Your task to perform on an android device: turn on javascript in the chrome app Image 0: 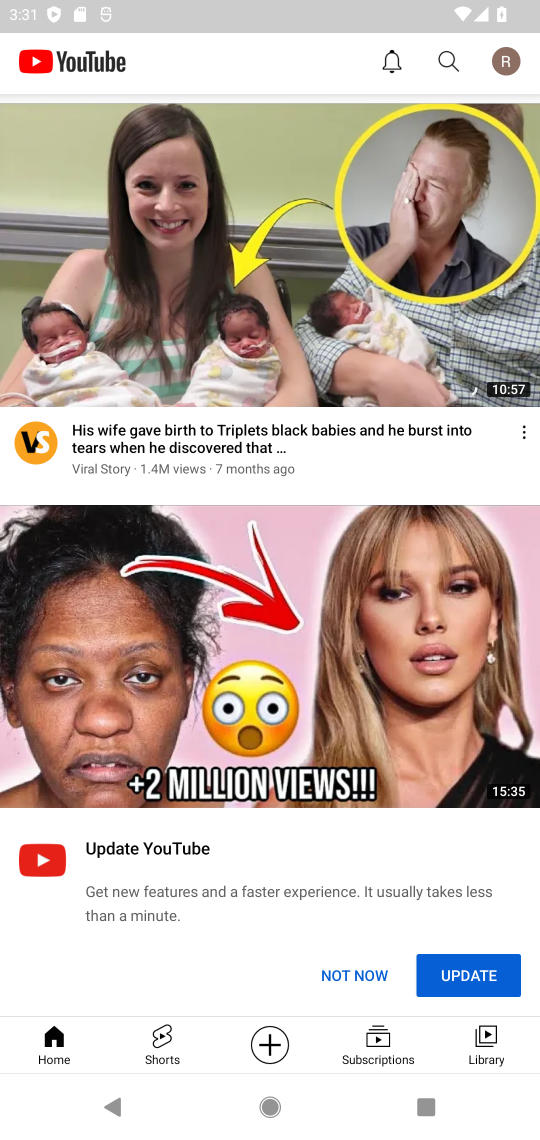
Step 0: press home button
Your task to perform on an android device: turn on javascript in the chrome app Image 1: 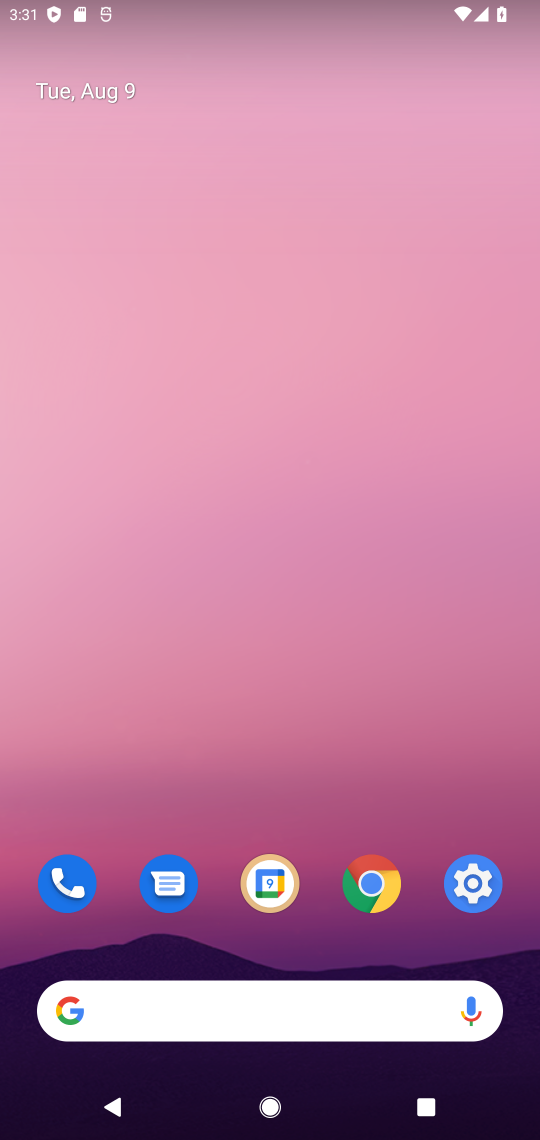
Step 1: drag from (393, 1063) to (401, 404)
Your task to perform on an android device: turn on javascript in the chrome app Image 2: 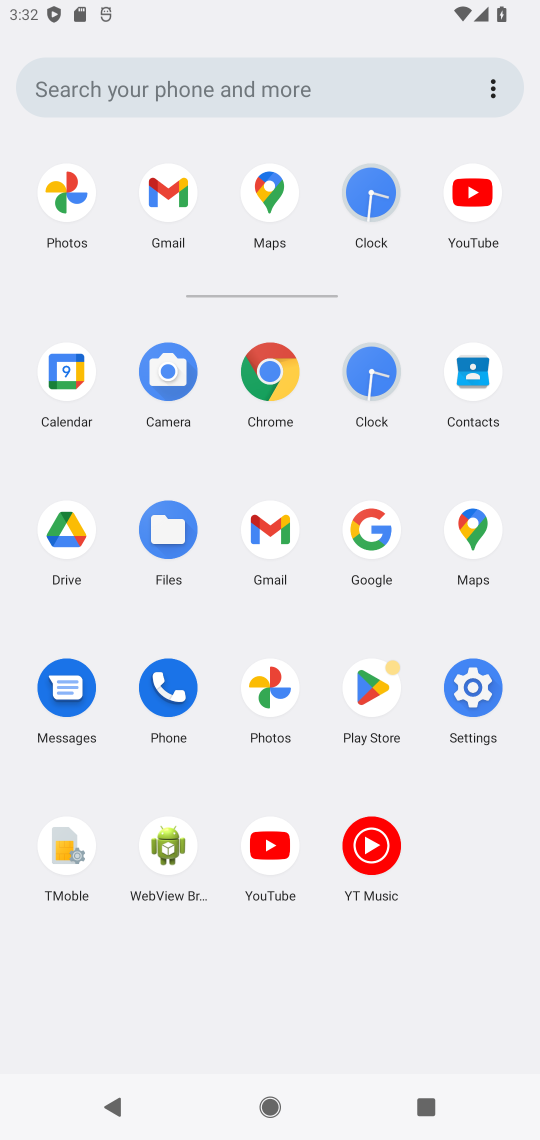
Step 2: click (272, 398)
Your task to perform on an android device: turn on javascript in the chrome app Image 3: 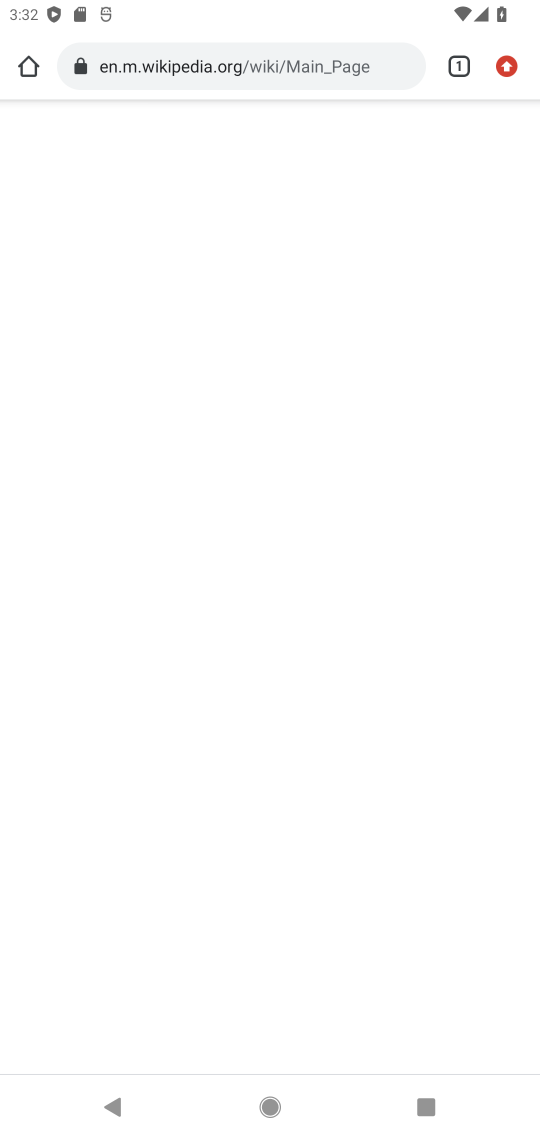
Step 3: click (498, 72)
Your task to perform on an android device: turn on javascript in the chrome app Image 4: 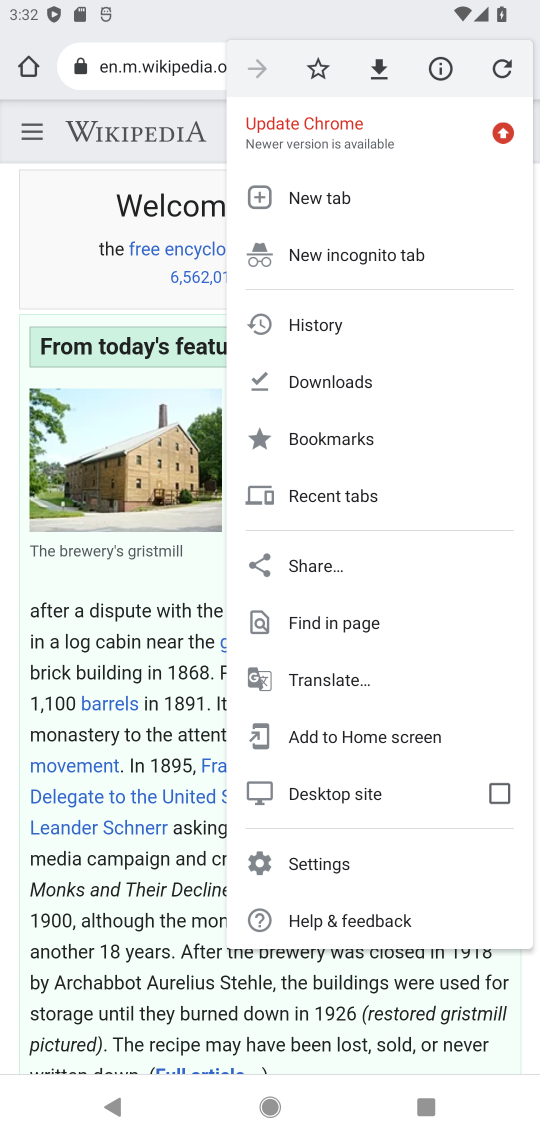
Step 4: click (312, 862)
Your task to perform on an android device: turn on javascript in the chrome app Image 5: 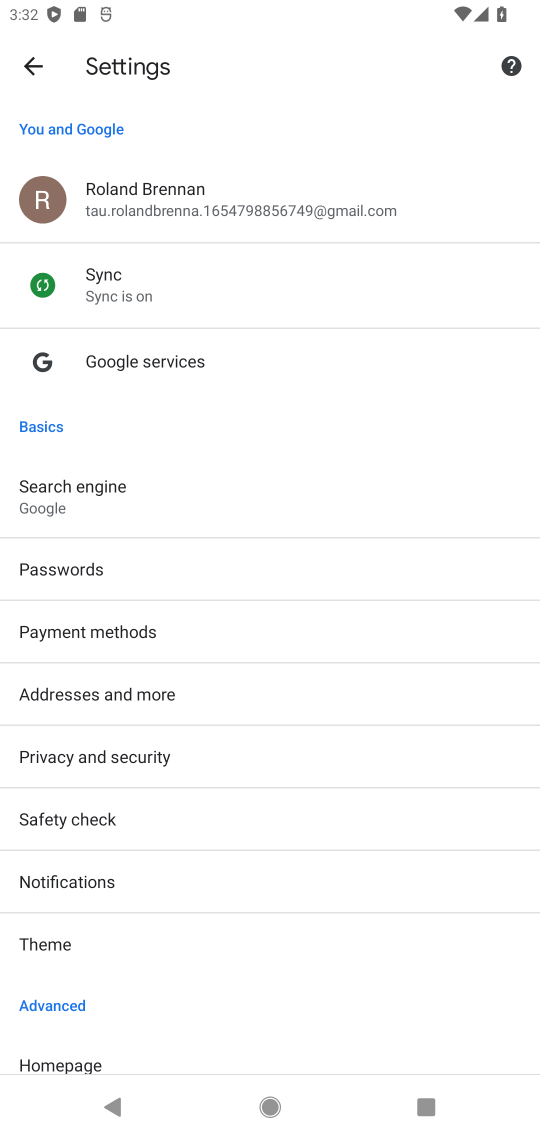
Step 5: drag from (130, 1004) to (159, 835)
Your task to perform on an android device: turn on javascript in the chrome app Image 6: 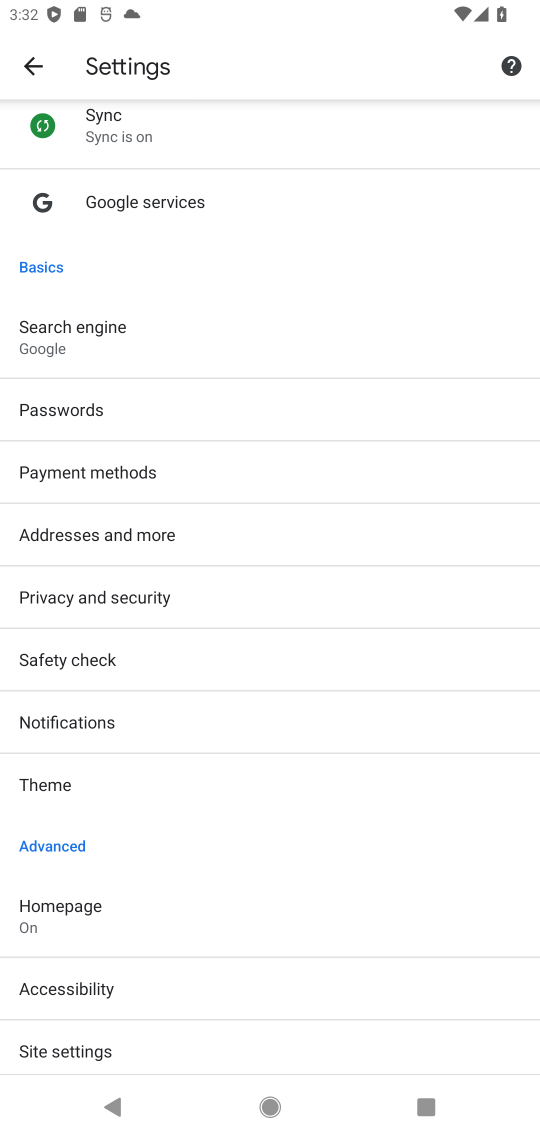
Step 6: click (79, 1041)
Your task to perform on an android device: turn on javascript in the chrome app Image 7: 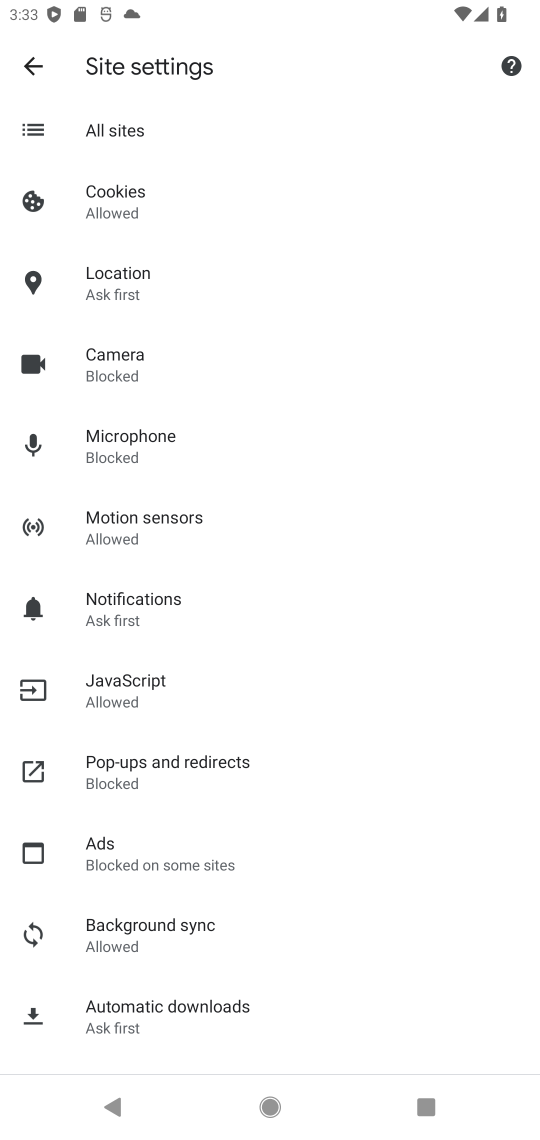
Step 7: click (102, 685)
Your task to perform on an android device: turn on javascript in the chrome app Image 8: 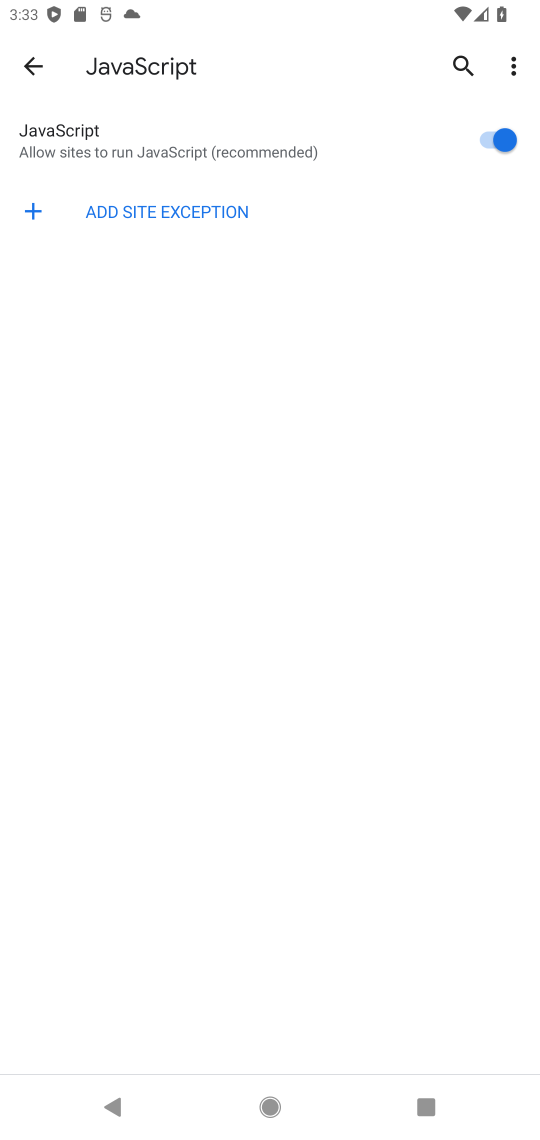
Step 8: task complete